Your task to perform on an android device: check storage Image 0: 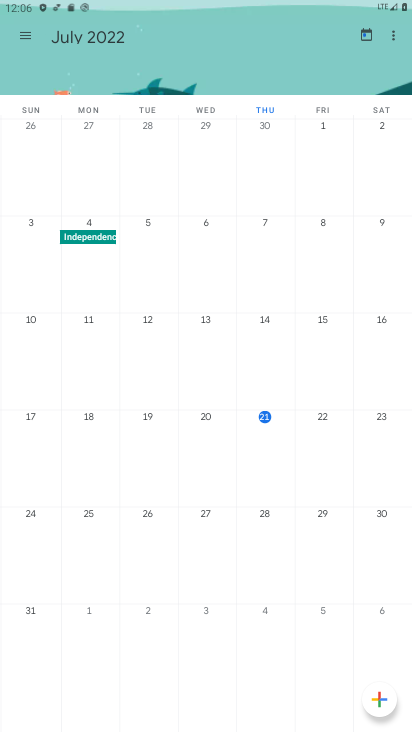
Step 0: press home button
Your task to perform on an android device: check storage Image 1: 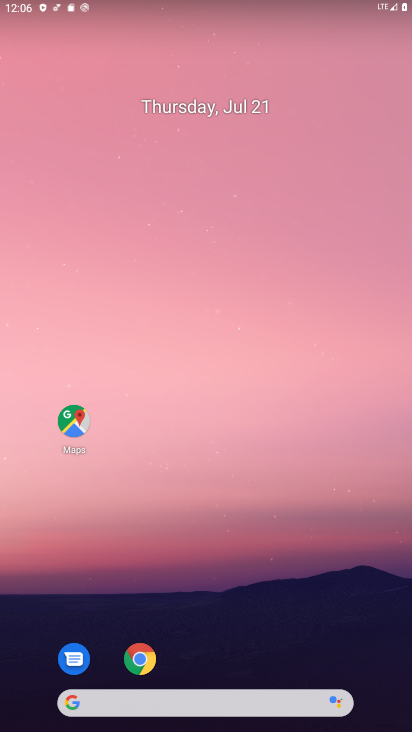
Step 1: drag from (224, 230) to (225, 103)
Your task to perform on an android device: check storage Image 2: 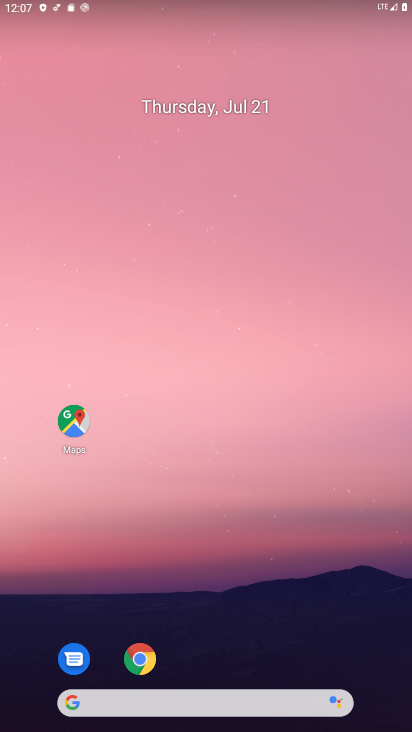
Step 2: drag from (224, 621) to (219, 134)
Your task to perform on an android device: check storage Image 3: 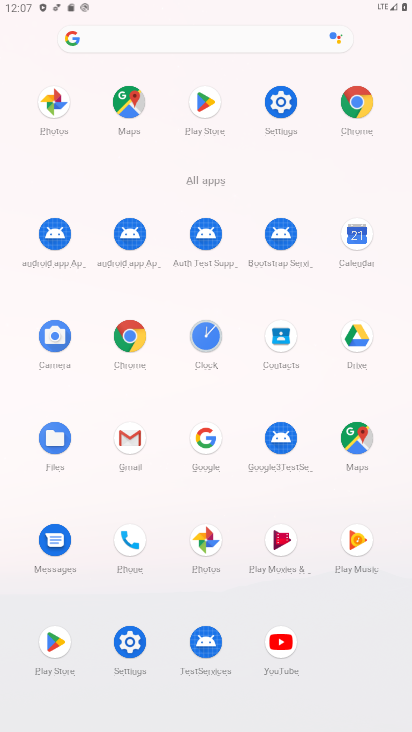
Step 3: click (279, 99)
Your task to perform on an android device: check storage Image 4: 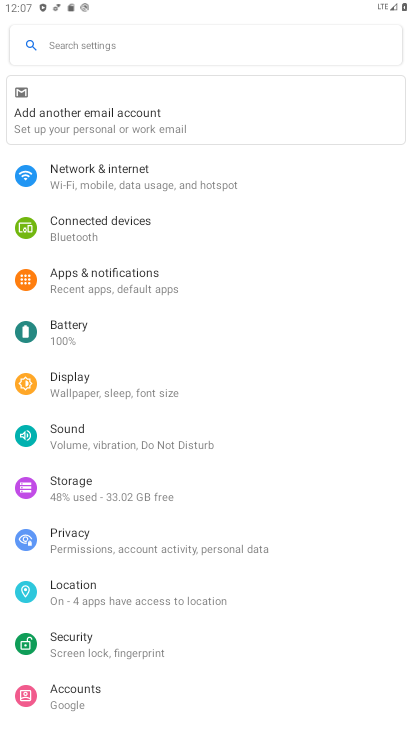
Step 4: click (56, 490)
Your task to perform on an android device: check storage Image 5: 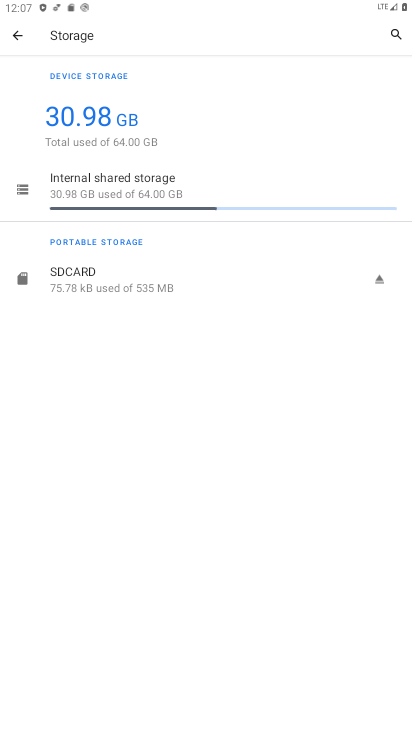
Step 5: task complete